Your task to perform on an android device: Search for "logitech g pro" on ebay, select the first entry, and add it to the cart. Image 0: 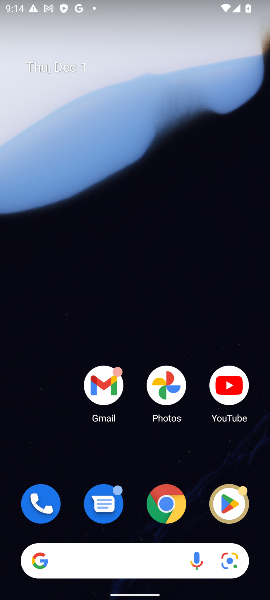
Step 0: click (163, 502)
Your task to perform on an android device: Search for "logitech g pro" on ebay, select the first entry, and add it to the cart. Image 1: 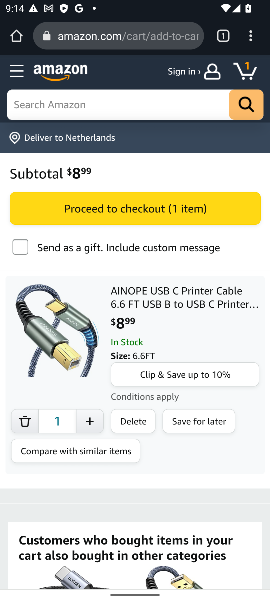
Step 1: press home button
Your task to perform on an android device: Search for "logitech g pro" on ebay, select the first entry, and add it to the cart. Image 2: 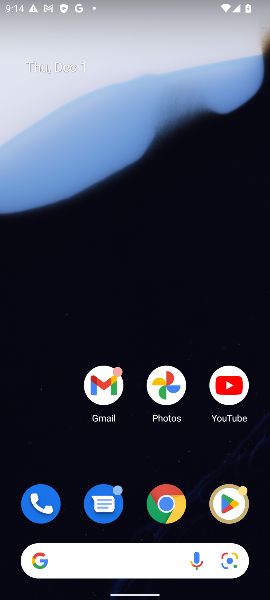
Step 2: click (159, 498)
Your task to perform on an android device: Search for "logitech g pro" on ebay, select the first entry, and add it to the cart. Image 3: 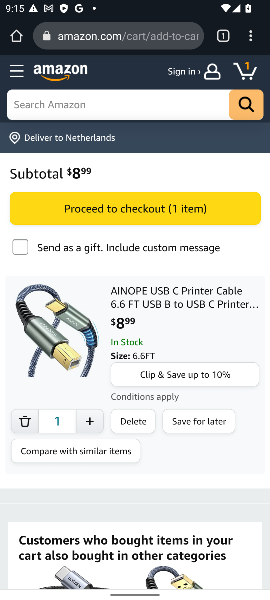
Step 3: click (103, 34)
Your task to perform on an android device: Search for "logitech g pro" on ebay, select the first entry, and add it to the cart. Image 4: 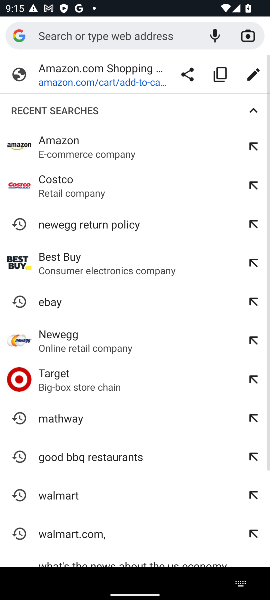
Step 4: click (60, 304)
Your task to perform on an android device: Search for "logitech g pro" on ebay, select the first entry, and add it to the cart. Image 5: 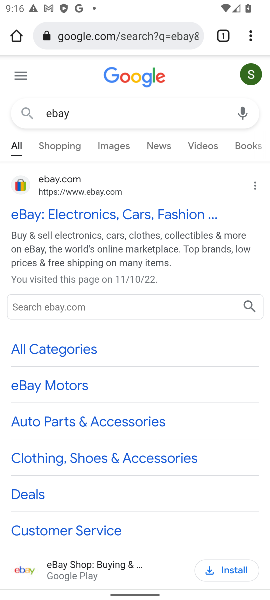
Step 5: click (85, 215)
Your task to perform on an android device: Search for "logitech g pro" on ebay, select the first entry, and add it to the cart. Image 6: 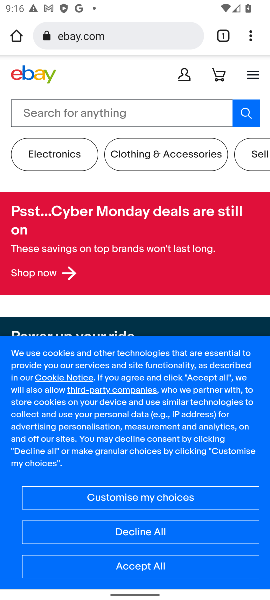
Step 6: click (92, 104)
Your task to perform on an android device: Search for "logitech g pro" on ebay, select the first entry, and add it to the cart. Image 7: 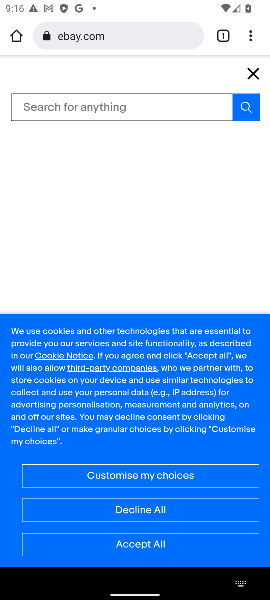
Step 7: click (161, 546)
Your task to perform on an android device: Search for "logitech g pro" on ebay, select the first entry, and add it to the cart. Image 8: 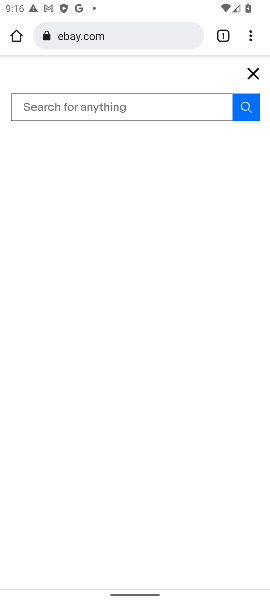
Step 8: type "logitech g pro"
Your task to perform on an android device: Search for "logitech g pro" on ebay, select the first entry, and add it to the cart. Image 9: 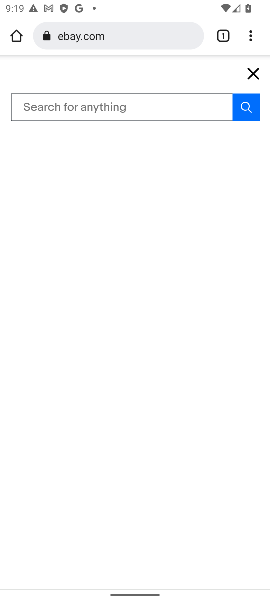
Step 9: click (112, 112)
Your task to perform on an android device: Search for "logitech g pro" on ebay, select the first entry, and add it to the cart. Image 10: 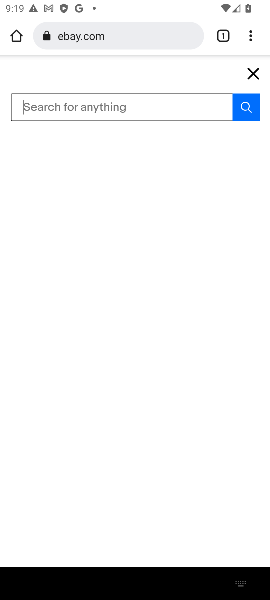
Step 10: click (100, 101)
Your task to perform on an android device: Search for "logitech g pro" on ebay, select the first entry, and add it to the cart. Image 11: 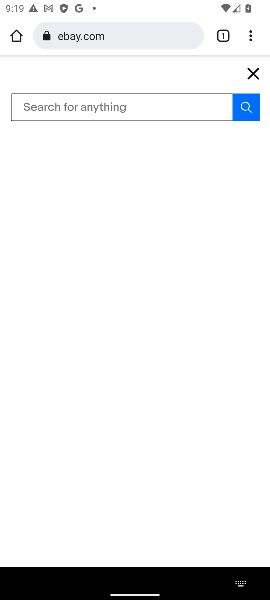
Step 11: type "logitech g pro"
Your task to perform on an android device: Search for "logitech g pro" on ebay, select the first entry, and add it to the cart. Image 12: 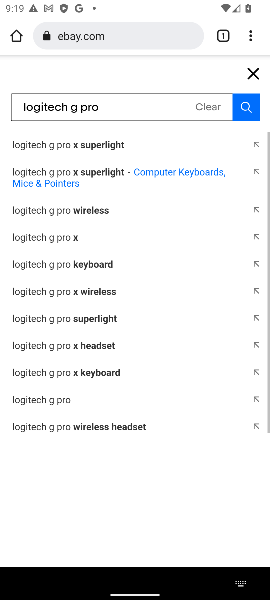
Step 12: click (63, 143)
Your task to perform on an android device: Search for "logitech g pro" on ebay, select the first entry, and add it to the cart. Image 13: 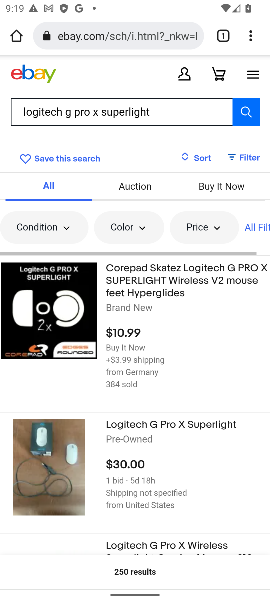
Step 13: click (193, 283)
Your task to perform on an android device: Search for "logitech g pro" on ebay, select the first entry, and add it to the cart. Image 14: 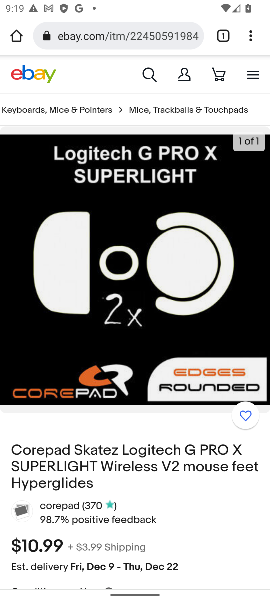
Step 14: drag from (177, 511) to (139, 163)
Your task to perform on an android device: Search for "logitech g pro" on ebay, select the first entry, and add it to the cart. Image 15: 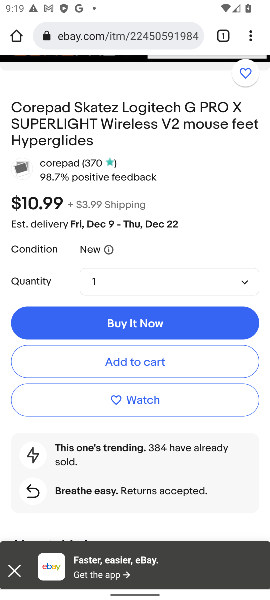
Step 15: click (139, 363)
Your task to perform on an android device: Search for "logitech g pro" on ebay, select the first entry, and add it to the cart. Image 16: 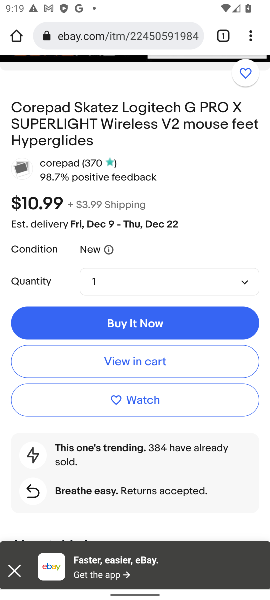
Step 16: task complete